Your task to perform on an android device: Open Youtube and go to the subscriptions tab Image 0: 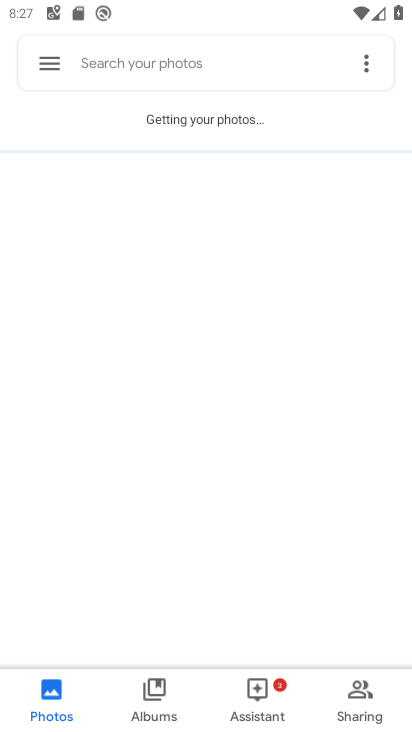
Step 0: drag from (278, 641) to (158, 22)
Your task to perform on an android device: Open Youtube and go to the subscriptions tab Image 1: 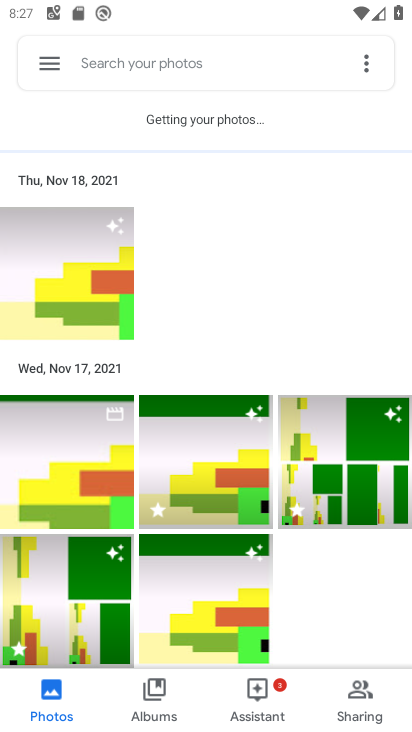
Step 1: press back button
Your task to perform on an android device: Open Youtube and go to the subscriptions tab Image 2: 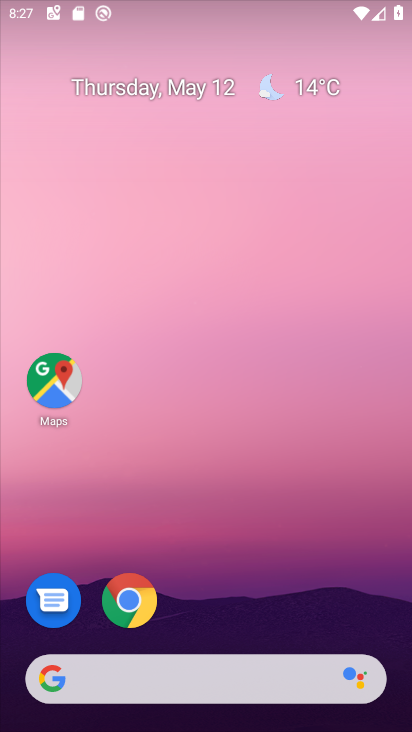
Step 2: drag from (296, 637) to (194, 226)
Your task to perform on an android device: Open Youtube and go to the subscriptions tab Image 3: 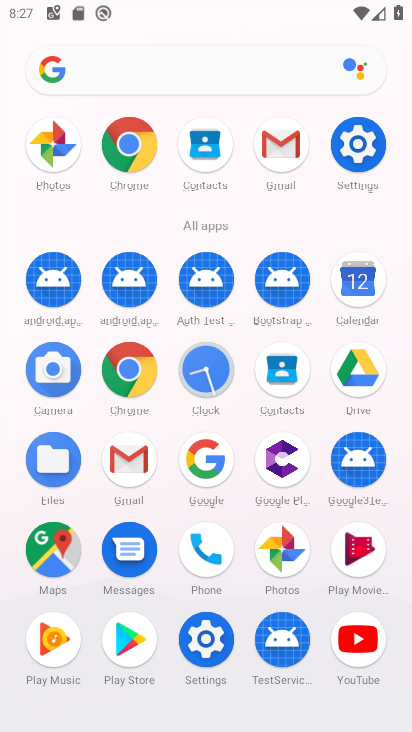
Step 3: click (360, 640)
Your task to perform on an android device: Open Youtube and go to the subscriptions tab Image 4: 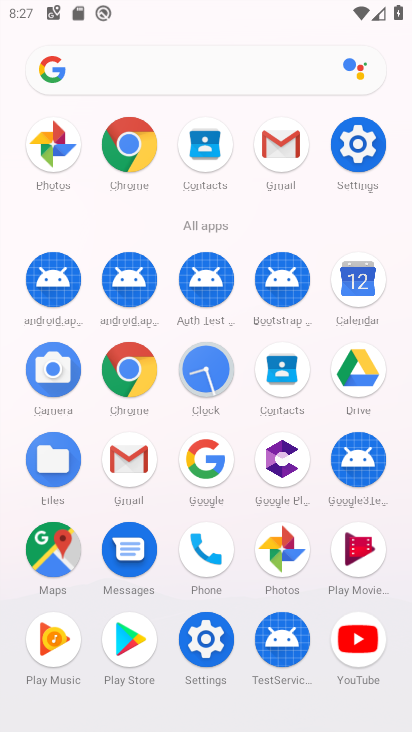
Step 4: click (362, 638)
Your task to perform on an android device: Open Youtube and go to the subscriptions tab Image 5: 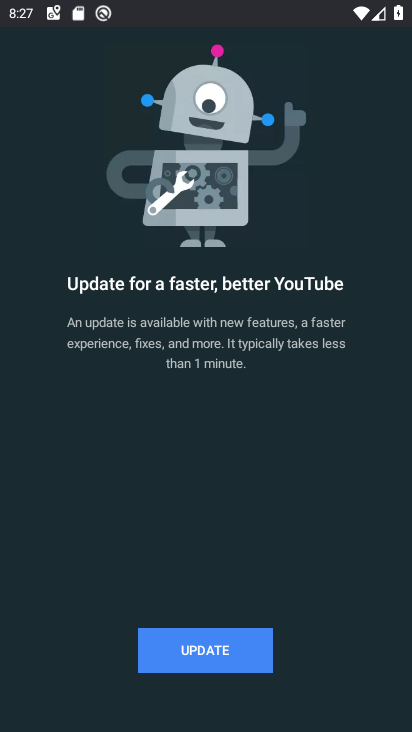
Step 5: click (214, 646)
Your task to perform on an android device: Open Youtube and go to the subscriptions tab Image 6: 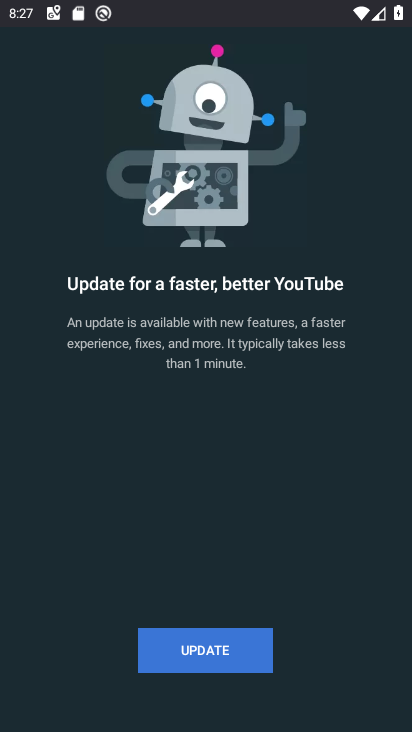
Step 6: click (213, 644)
Your task to perform on an android device: Open Youtube and go to the subscriptions tab Image 7: 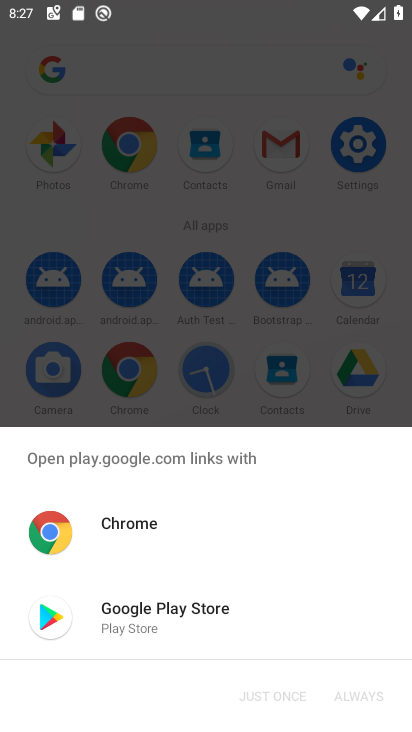
Step 7: click (119, 615)
Your task to perform on an android device: Open Youtube and go to the subscriptions tab Image 8: 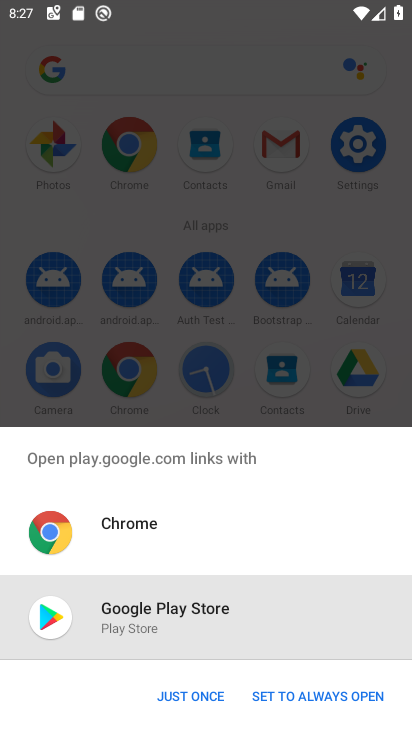
Step 8: click (128, 609)
Your task to perform on an android device: Open Youtube and go to the subscriptions tab Image 9: 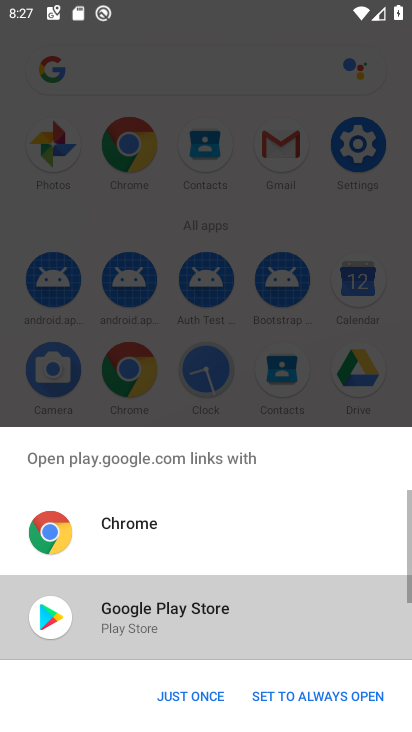
Step 9: click (129, 608)
Your task to perform on an android device: Open Youtube and go to the subscriptions tab Image 10: 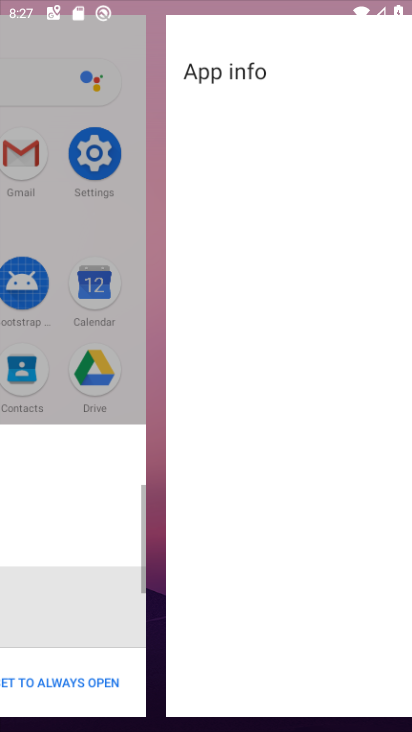
Step 10: click (129, 605)
Your task to perform on an android device: Open Youtube and go to the subscriptions tab Image 11: 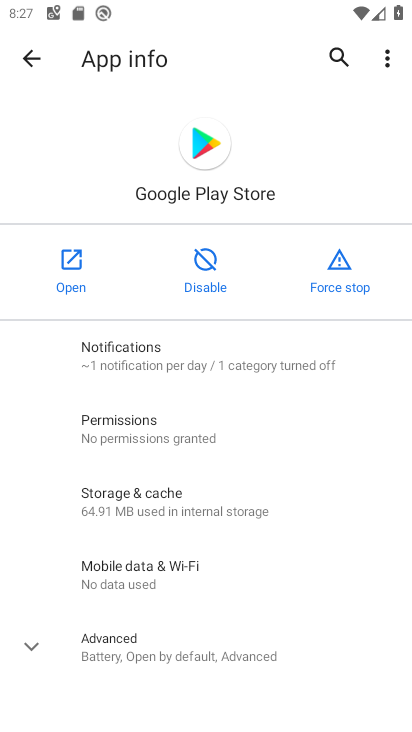
Step 11: click (23, 53)
Your task to perform on an android device: Open Youtube and go to the subscriptions tab Image 12: 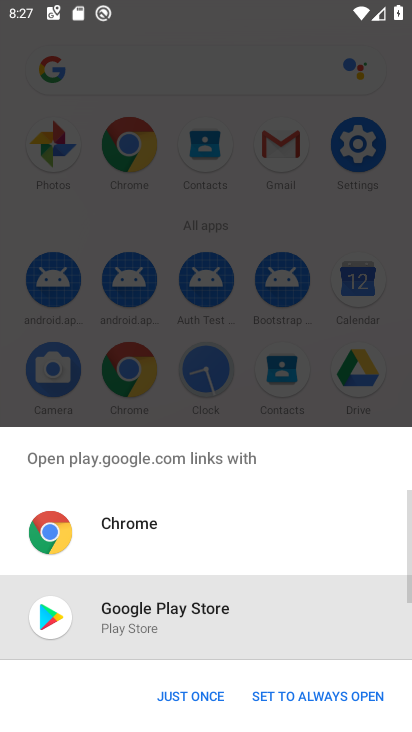
Step 12: click (144, 608)
Your task to perform on an android device: Open Youtube and go to the subscriptions tab Image 13: 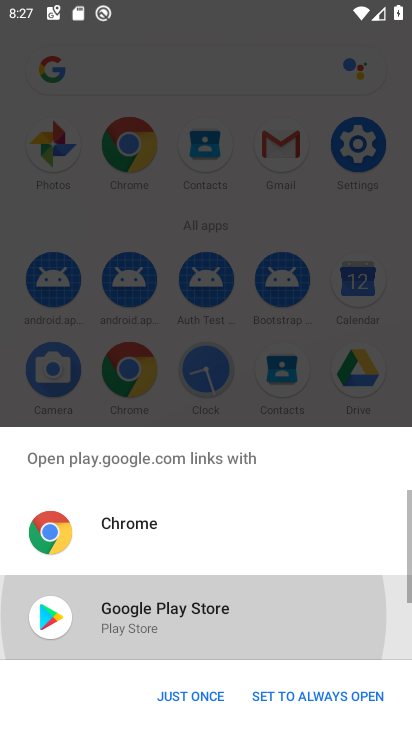
Step 13: click (144, 608)
Your task to perform on an android device: Open Youtube and go to the subscriptions tab Image 14: 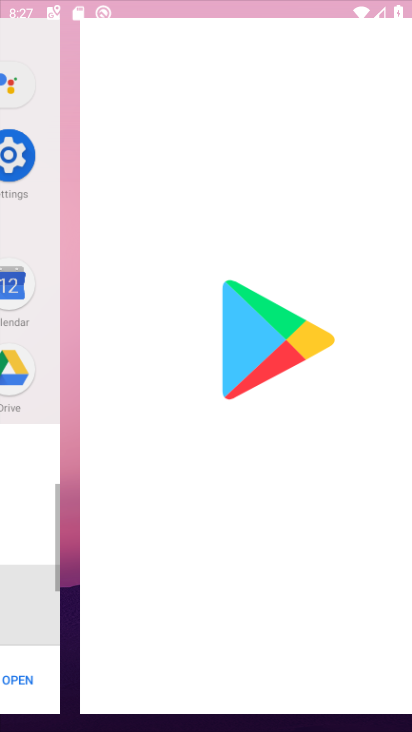
Step 14: click (143, 609)
Your task to perform on an android device: Open Youtube and go to the subscriptions tab Image 15: 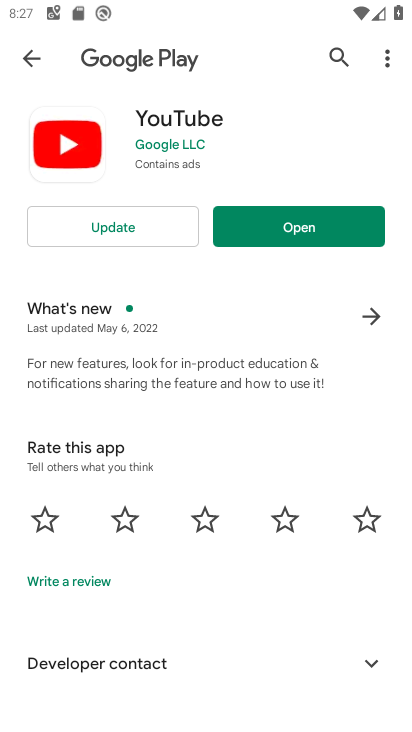
Step 15: click (114, 227)
Your task to perform on an android device: Open Youtube and go to the subscriptions tab Image 16: 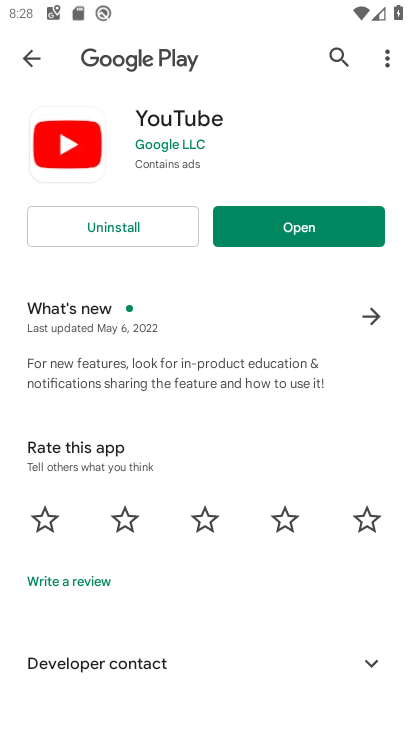
Step 16: click (313, 221)
Your task to perform on an android device: Open Youtube and go to the subscriptions tab Image 17: 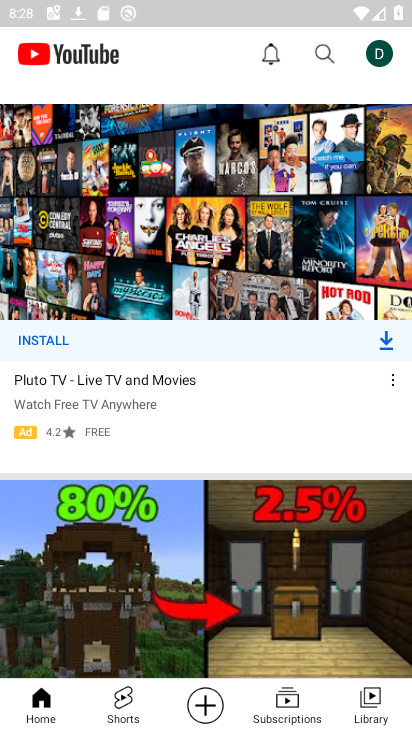
Step 17: click (292, 708)
Your task to perform on an android device: Open Youtube and go to the subscriptions tab Image 18: 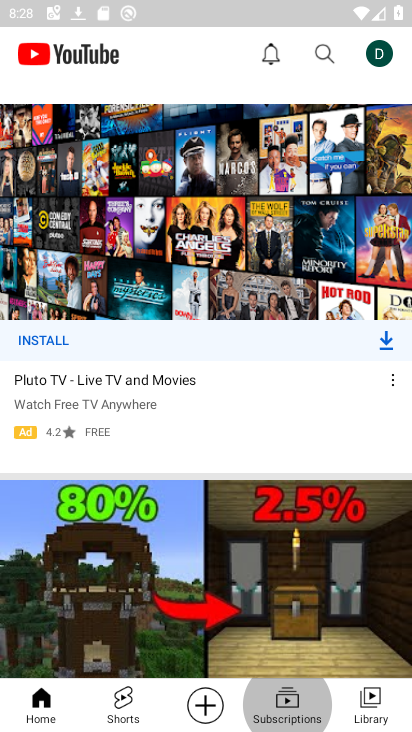
Step 18: click (293, 709)
Your task to perform on an android device: Open Youtube and go to the subscriptions tab Image 19: 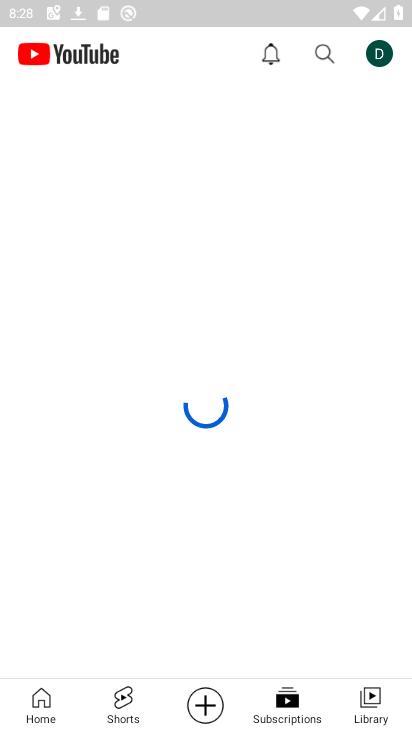
Step 19: click (293, 709)
Your task to perform on an android device: Open Youtube and go to the subscriptions tab Image 20: 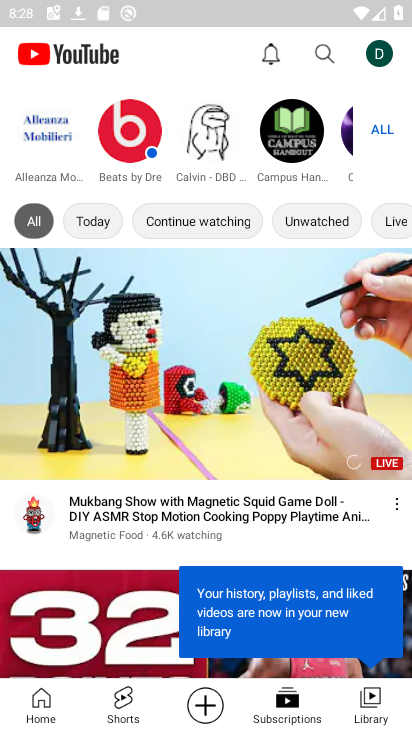
Step 20: task complete